Your task to perform on an android device: turn off notifications settings in the gmail app Image 0: 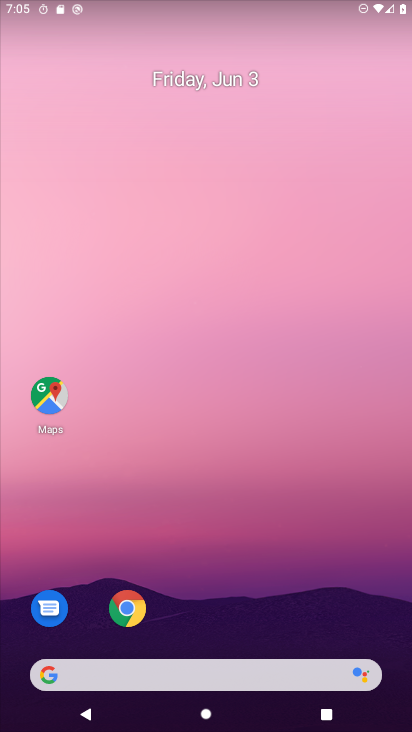
Step 0: drag from (240, 632) to (253, 226)
Your task to perform on an android device: turn off notifications settings in the gmail app Image 1: 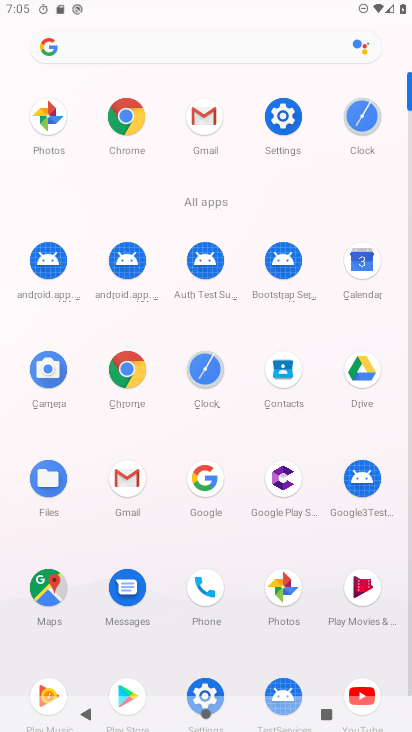
Step 1: click (293, 113)
Your task to perform on an android device: turn off notifications settings in the gmail app Image 2: 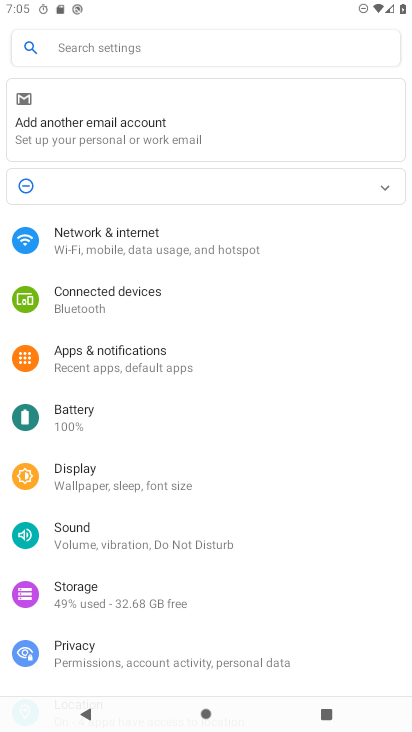
Step 2: click (144, 359)
Your task to perform on an android device: turn off notifications settings in the gmail app Image 3: 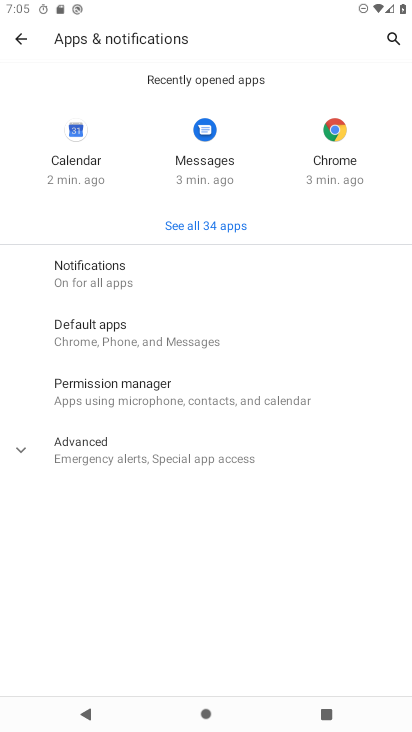
Step 3: click (244, 236)
Your task to perform on an android device: turn off notifications settings in the gmail app Image 4: 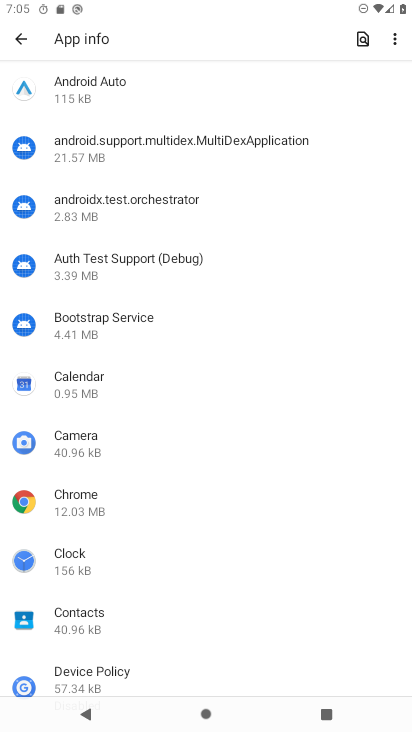
Step 4: drag from (120, 644) to (166, 185)
Your task to perform on an android device: turn off notifications settings in the gmail app Image 5: 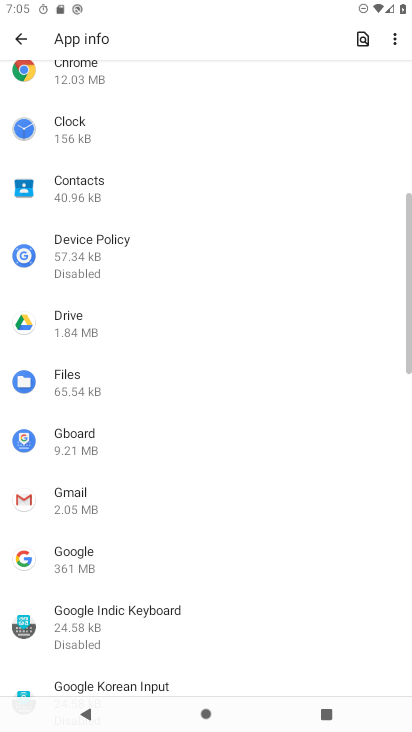
Step 5: click (105, 508)
Your task to perform on an android device: turn off notifications settings in the gmail app Image 6: 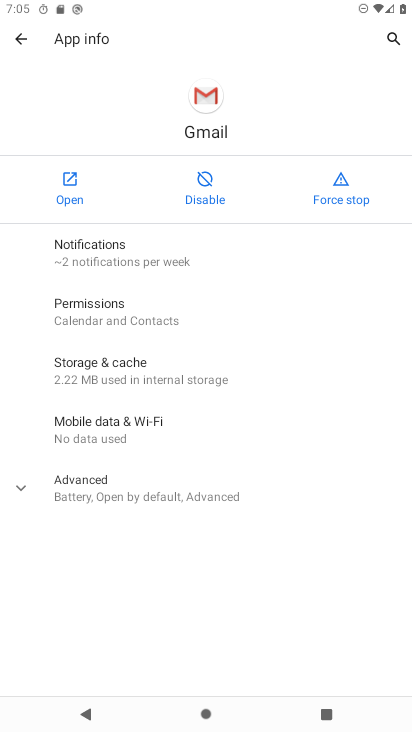
Step 6: click (113, 255)
Your task to perform on an android device: turn off notifications settings in the gmail app Image 7: 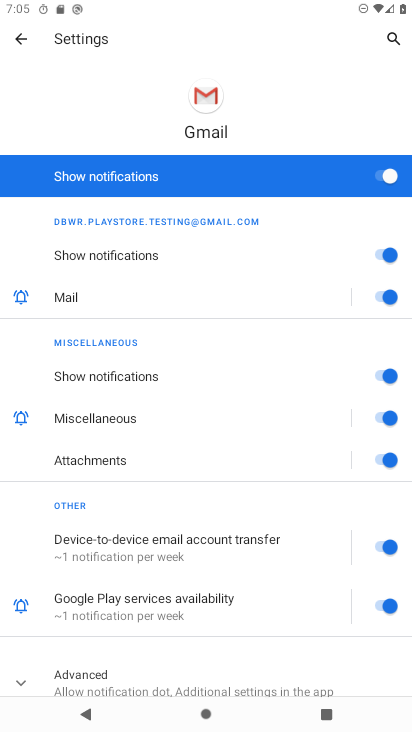
Step 7: click (392, 181)
Your task to perform on an android device: turn off notifications settings in the gmail app Image 8: 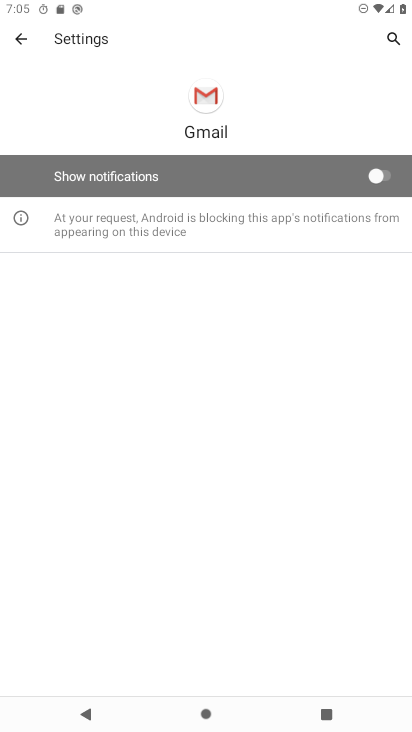
Step 8: task complete